Your task to perform on an android device: What's the weather? Image 0: 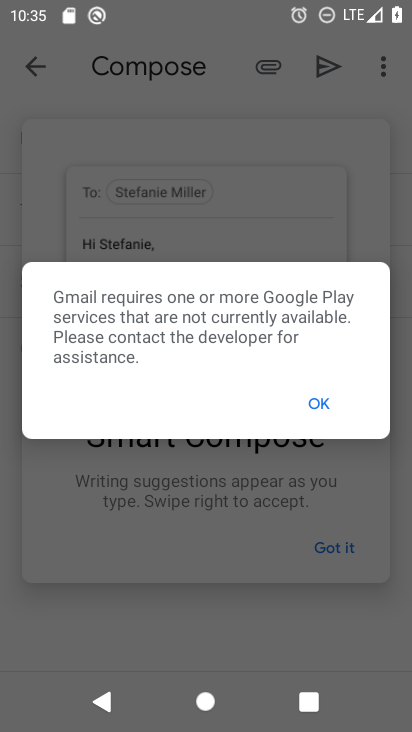
Step 0: press home button
Your task to perform on an android device: What's the weather? Image 1: 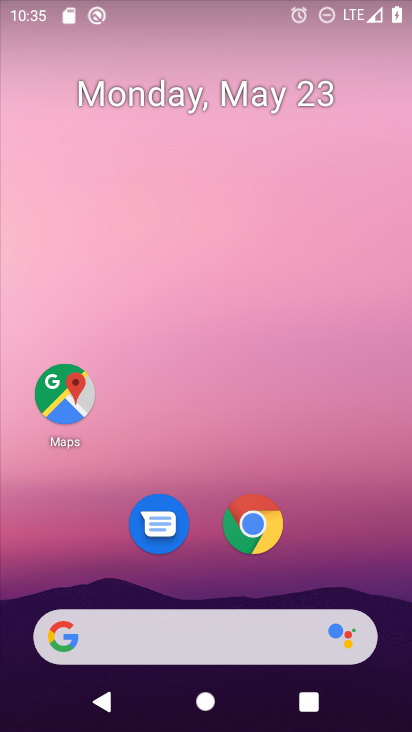
Step 1: click (120, 632)
Your task to perform on an android device: What's the weather? Image 2: 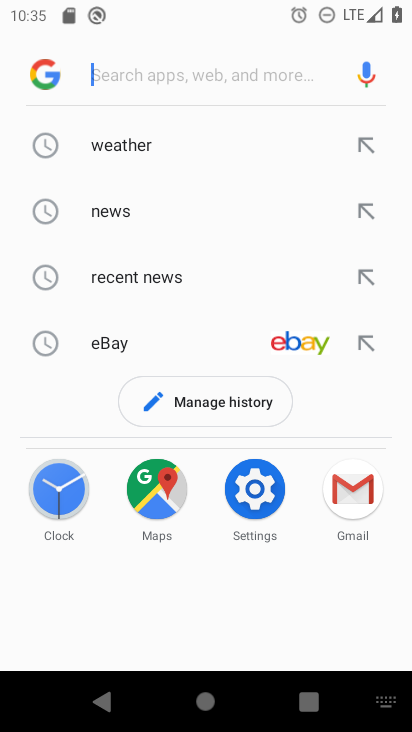
Step 2: click (98, 152)
Your task to perform on an android device: What's the weather? Image 3: 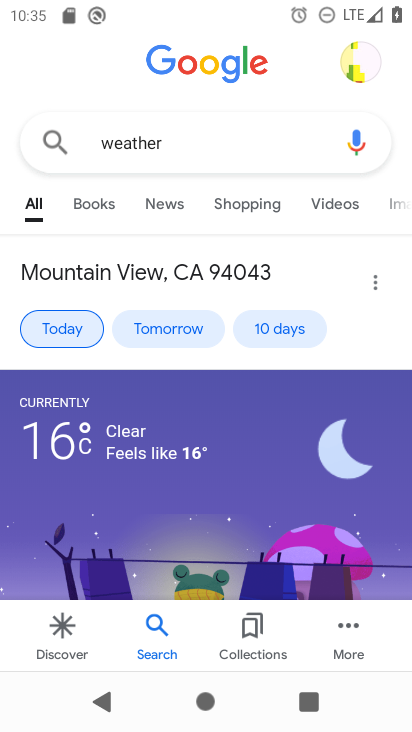
Step 3: click (74, 320)
Your task to perform on an android device: What's the weather? Image 4: 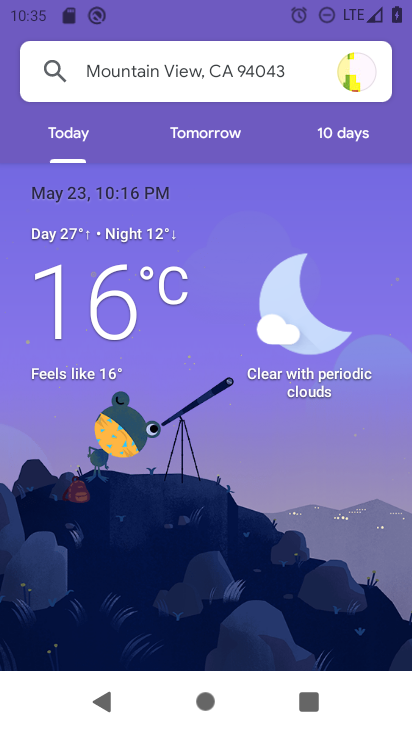
Step 4: task complete